Your task to perform on an android device: Open Maps and search for coffee Image 0: 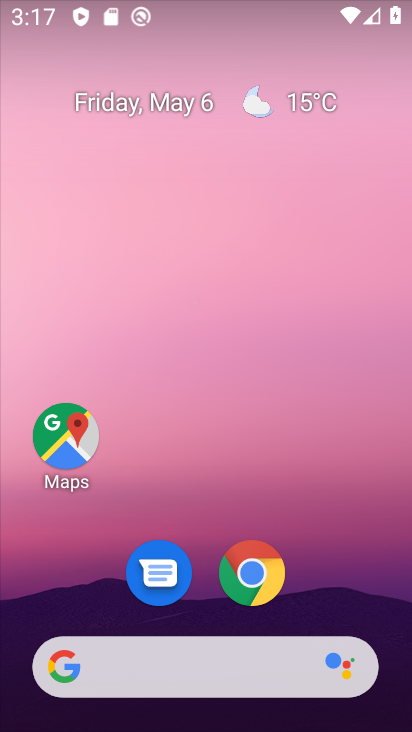
Step 0: drag from (229, 603) to (233, 200)
Your task to perform on an android device: Open Maps and search for coffee Image 1: 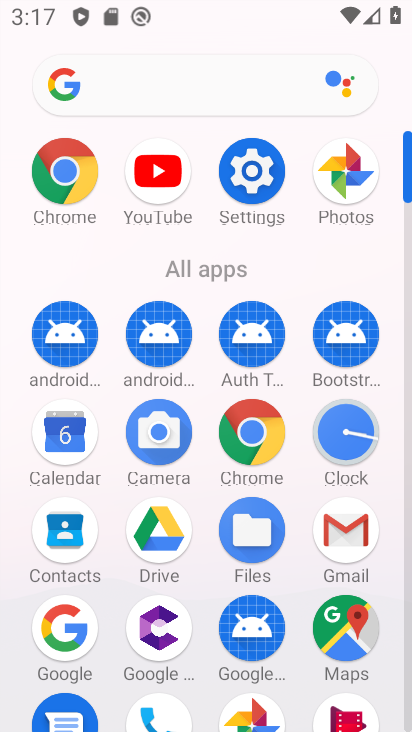
Step 1: click (344, 618)
Your task to perform on an android device: Open Maps and search for coffee Image 2: 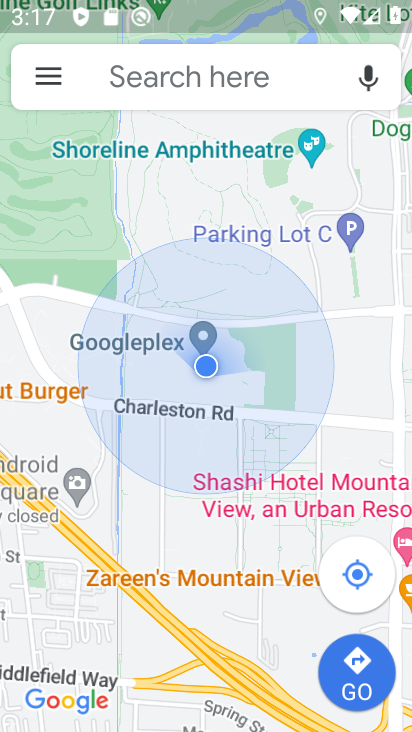
Step 2: click (156, 76)
Your task to perform on an android device: Open Maps and search for coffee Image 3: 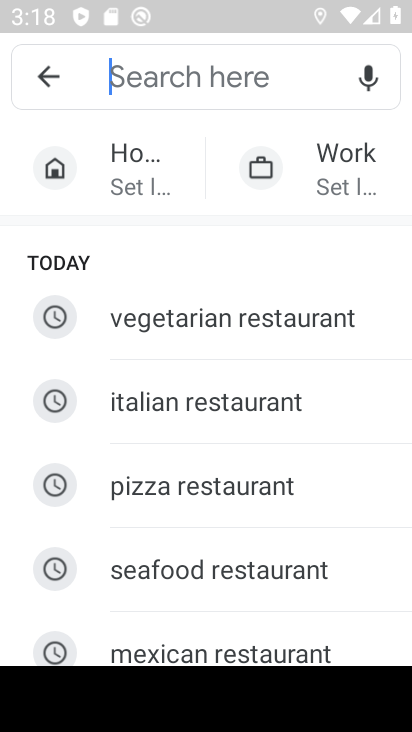
Step 3: drag from (202, 460) to (230, 243)
Your task to perform on an android device: Open Maps and search for coffee Image 4: 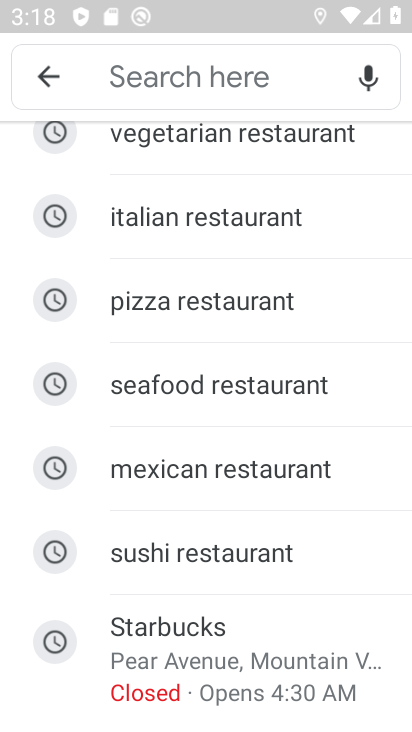
Step 4: drag from (204, 615) to (205, 277)
Your task to perform on an android device: Open Maps and search for coffee Image 5: 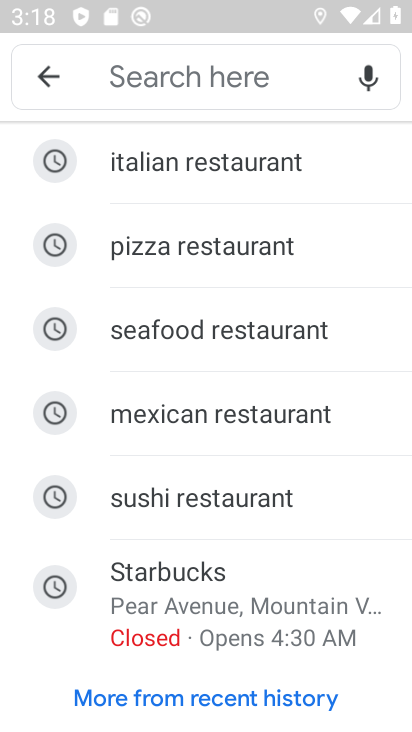
Step 5: drag from (170, 616) to (165, 269)
Your task to perform on an android device: Open Maps and search for coffee Image 6: 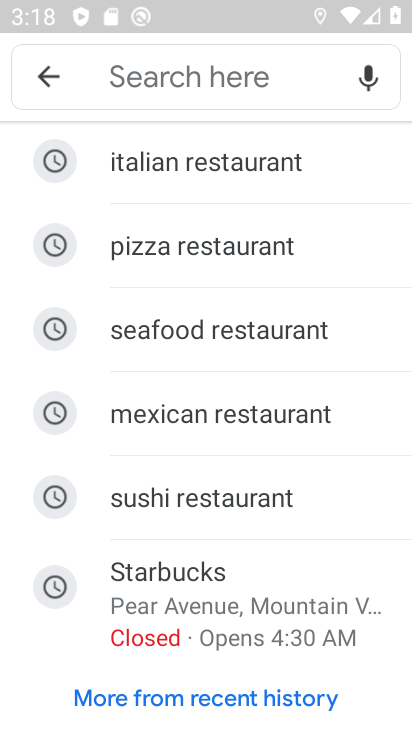
Step 6: drag from (211, 199) to (211, 591)
Your task to perform on an android device: Open Maps and search for coffee Image 7: 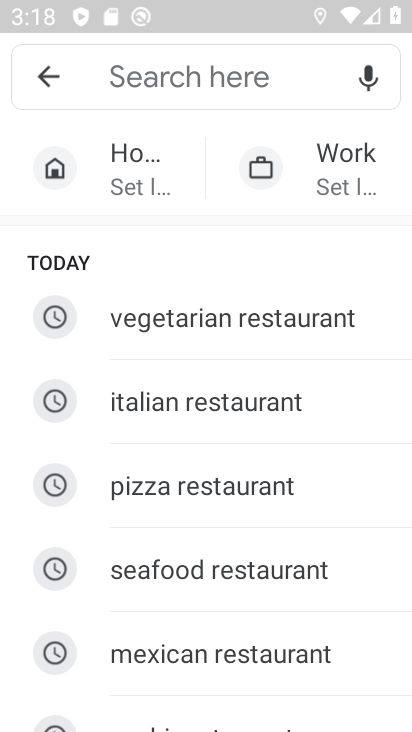
Step 7: drag from (249, 306) to (279, 506)
Your task to perform on an android device: Open Maps and search for coffee Image 8: 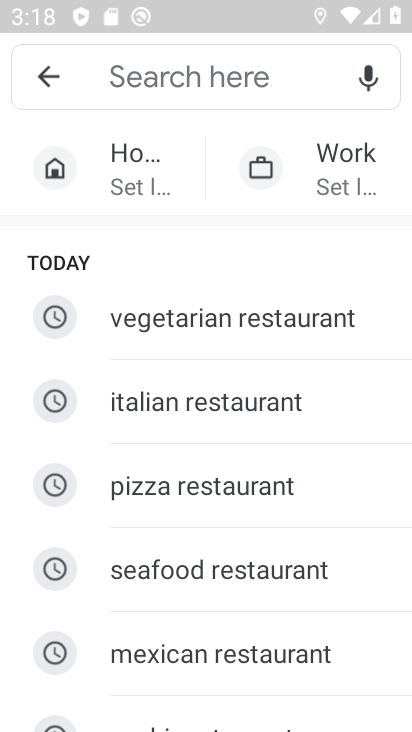
Step 8: click (183, 86)
Your task to perform on an android device: Open Maps and search for coffee Image 9: 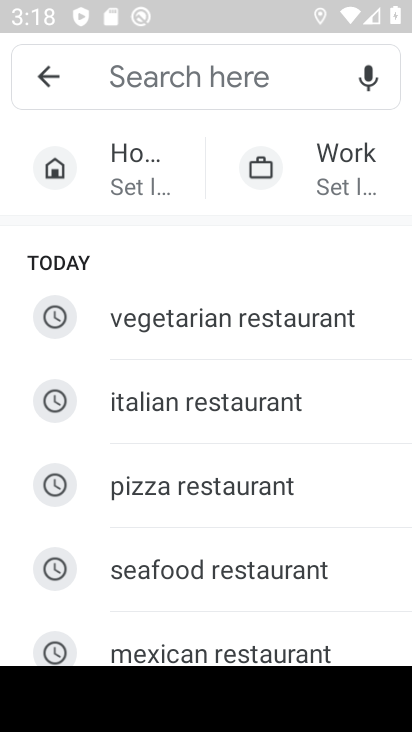
Step 9: drag from (230, 567) to (222, 225)
Your task to perform on an android device: Open Maps and search for coffee Image 10: 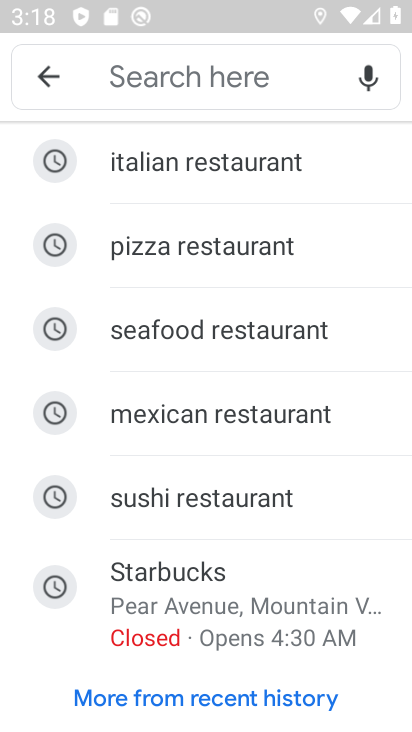
Step 10: click (175, 84)
Your task to perform on an android device: Open Maps and search for coffee Image 11: 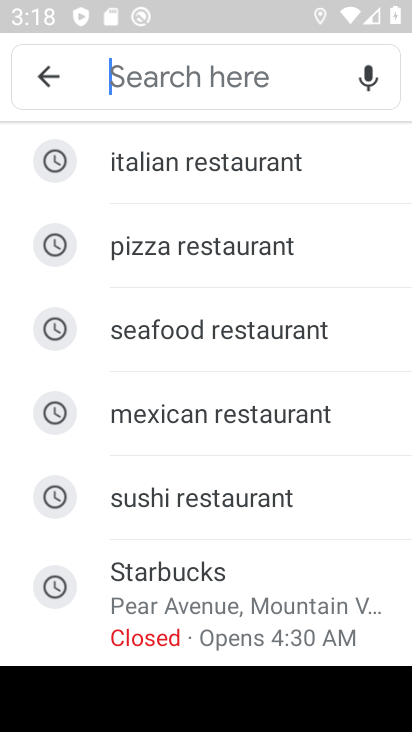
Step 11: type "coffee"
Your task to perform on an android device: Open Maps and search for coffee Image 12: 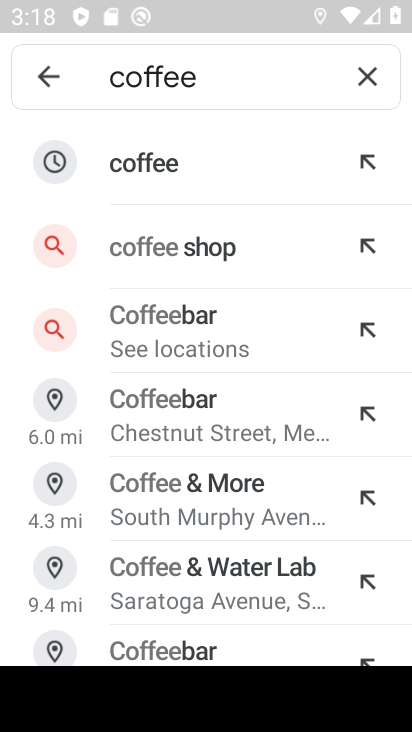
Step 12: click (195, 155)
Your task to perform on an android device: Open Maps and search for coffee Image 13: 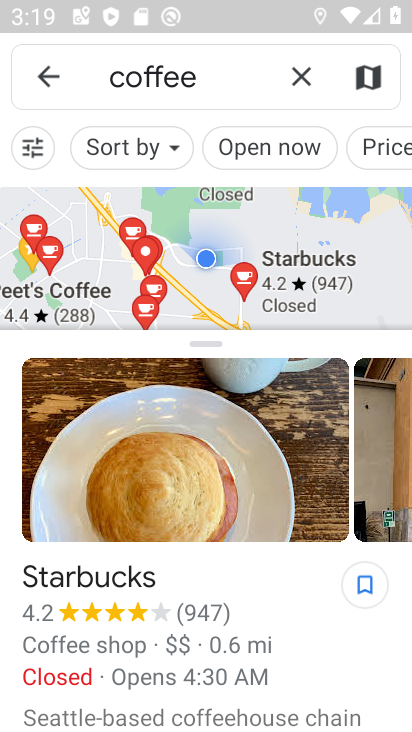
Step 13: task complete